Your task to perform on an android device: Turn on the flashlight Image 0: 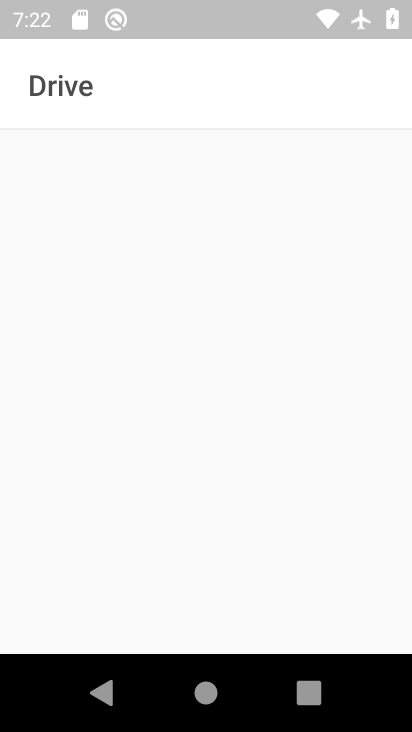
Step 0: press home button
Your task to perform on an android device: Turn on the flashlight Image 1: 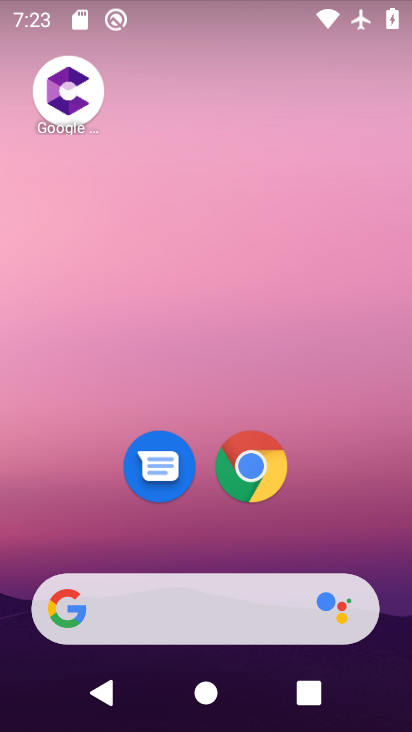
Step 1: drag from (355, 508) to (255, 155)
Your task to perform on an android device: Turn on the flashlight Image 2: 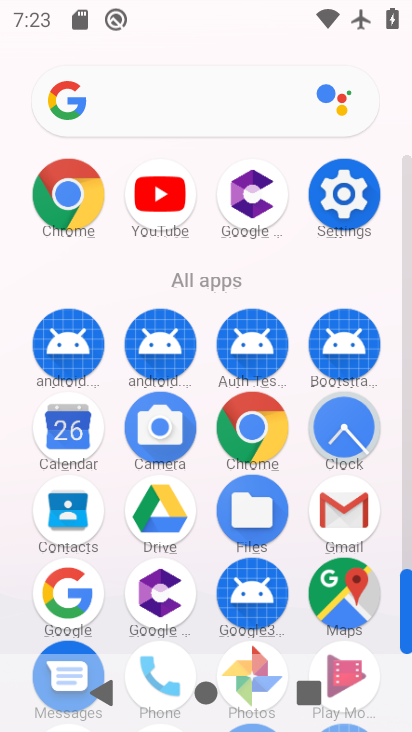
Step 2: click (353, 220)
Your task to perform on an android device: Turn on the flashlight Image 3: 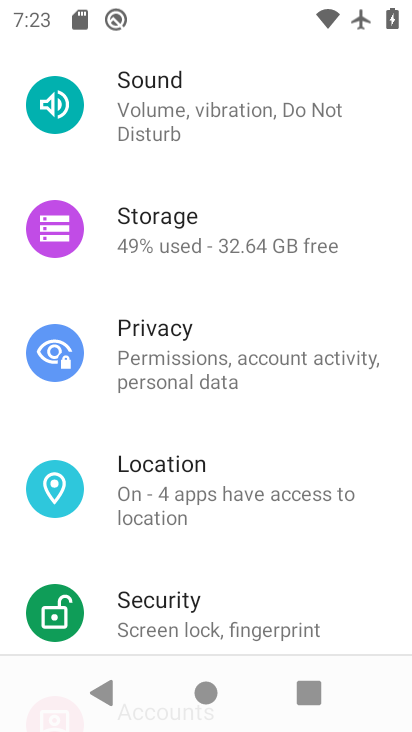
Step 3: drag from (269, 247) to (292, 683)
Your task to perform on an android device: Turn on the flashlight Image 4: 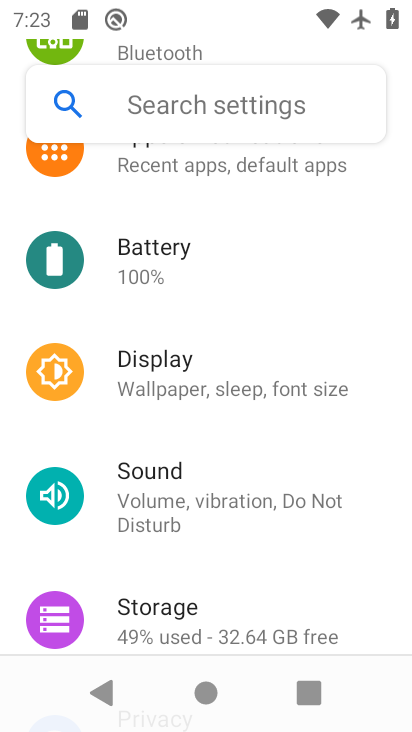
Step 4: drag from (261, 314) to (302, 655)
Your task to perform on an android device: Turn on the flashlight Image 5: 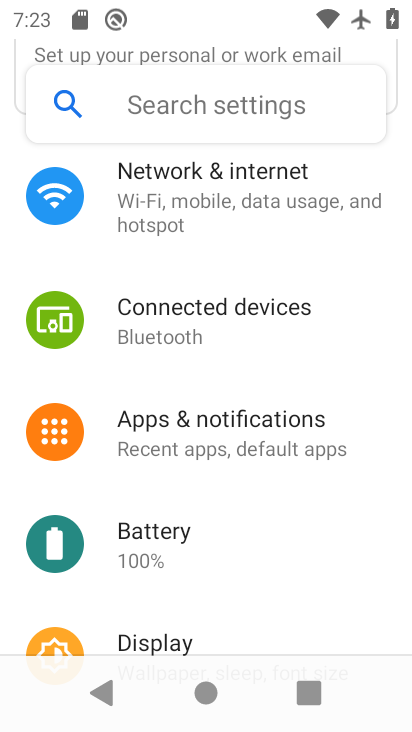
Step 5: click (263, 206)
Your task to perform on an android device: Turn on the flashlight Image 6: 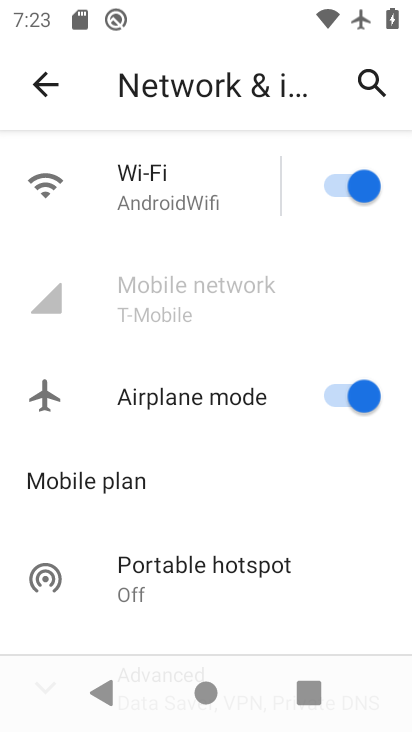
Step 6: task complete